Your task to perform on an android device: Show the shopping cart on target.com. Add logitech g pro to the cart on target.com Image 0: 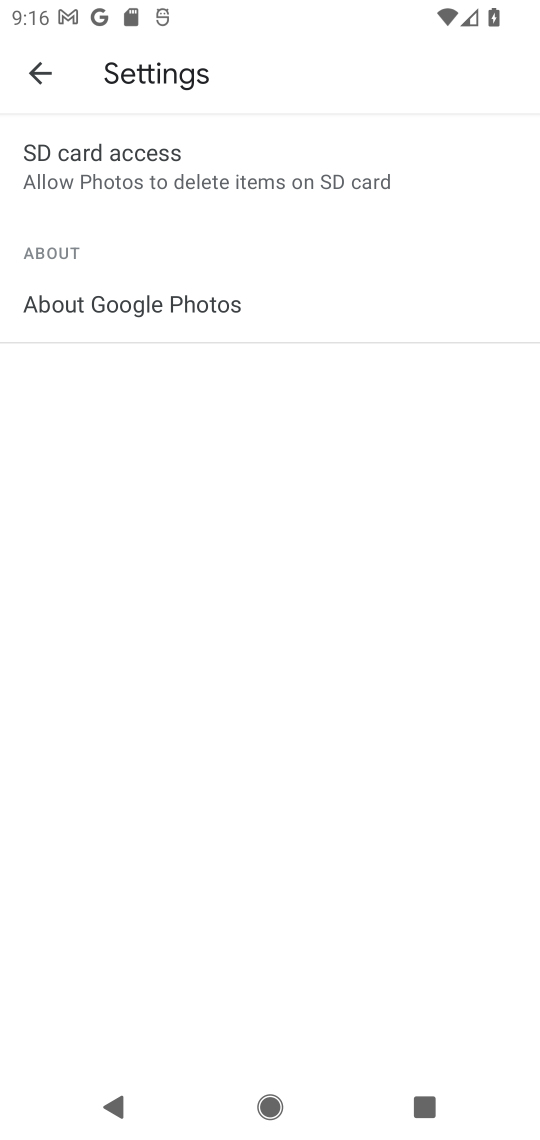
Step 0: press home button
Your task to perform on an android device: Show the shopping cart on target.com. Add logitech g pro to the cart on target.com Image 1: 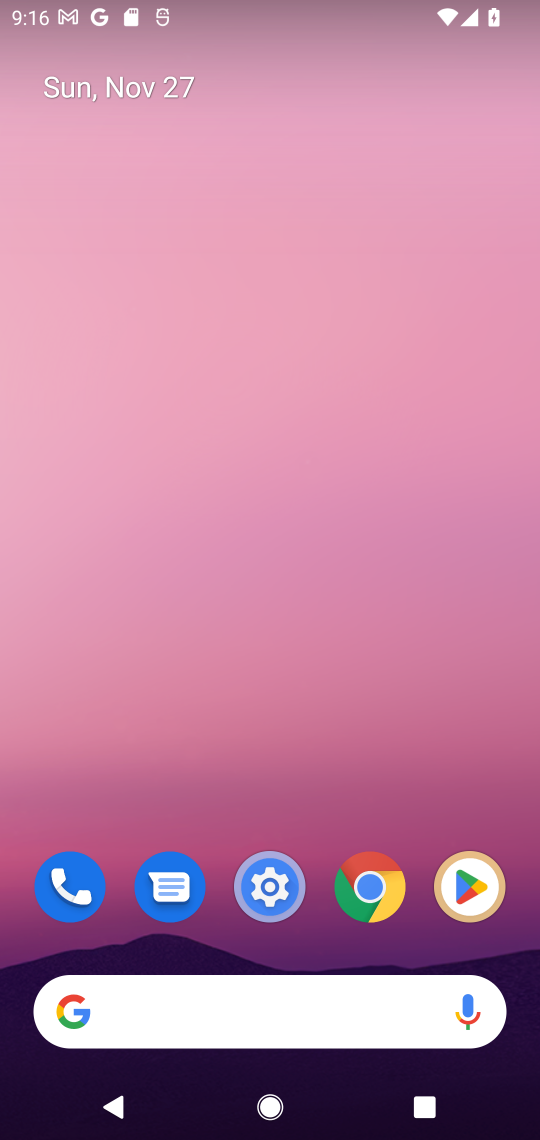
Step 1: click (343, 993)
Your task to perform on an android device: Show the shopping cart on target.com. Add logitech g pro to the cart on target.com Image 2: 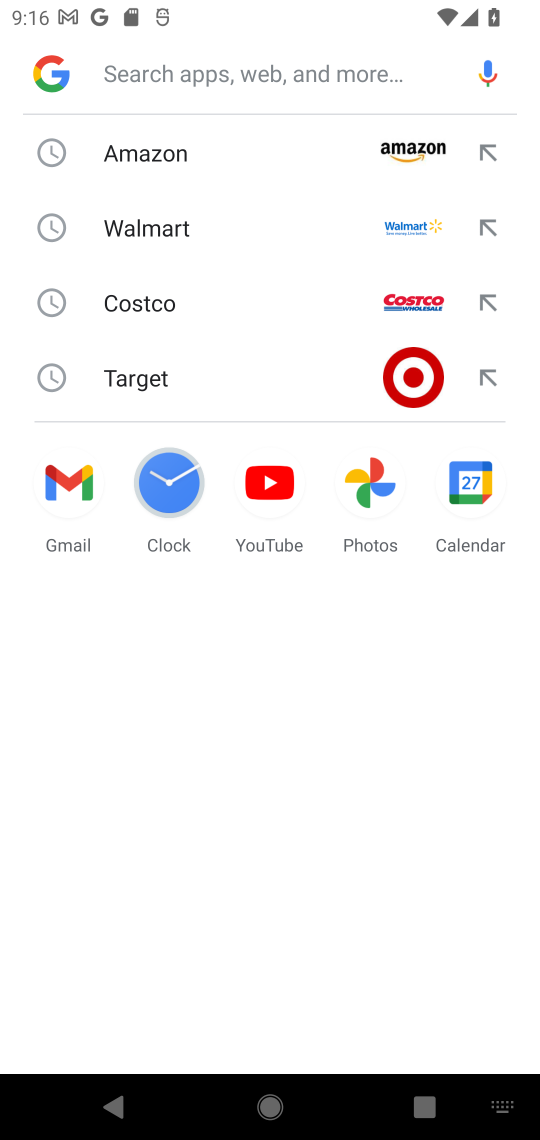
Step 2: click (213, 403)
Your task to perform on an android device: Show the shopping cart on target.com. Add logitech g pro to the cart on target.com Image 3: 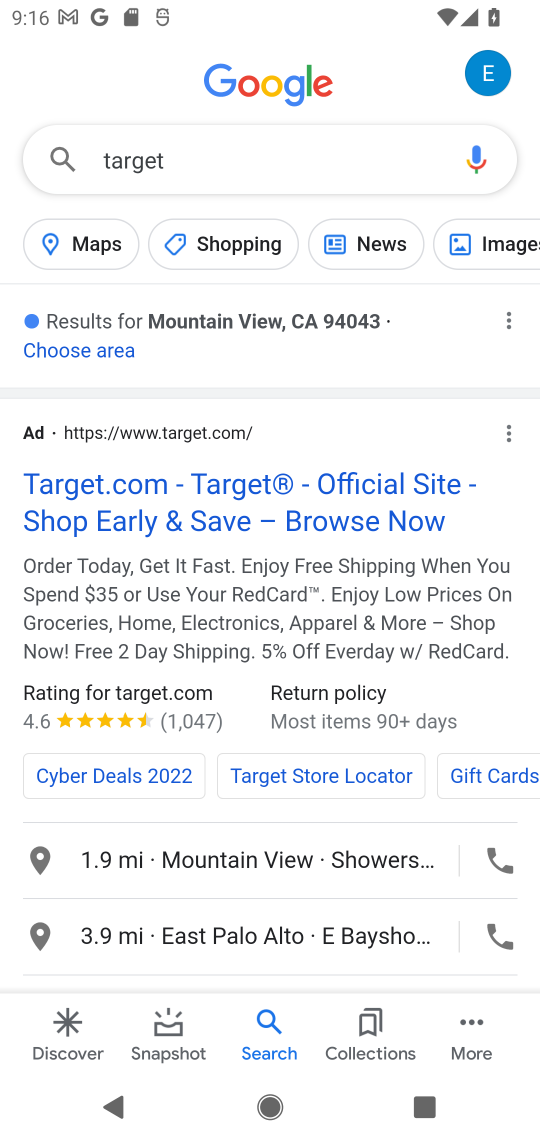
Step 3: click (243, 490)
Your task to perform on an android device: Show the shopping cart on target.com. Add logitech g pro to the cart on target.com Image 4: 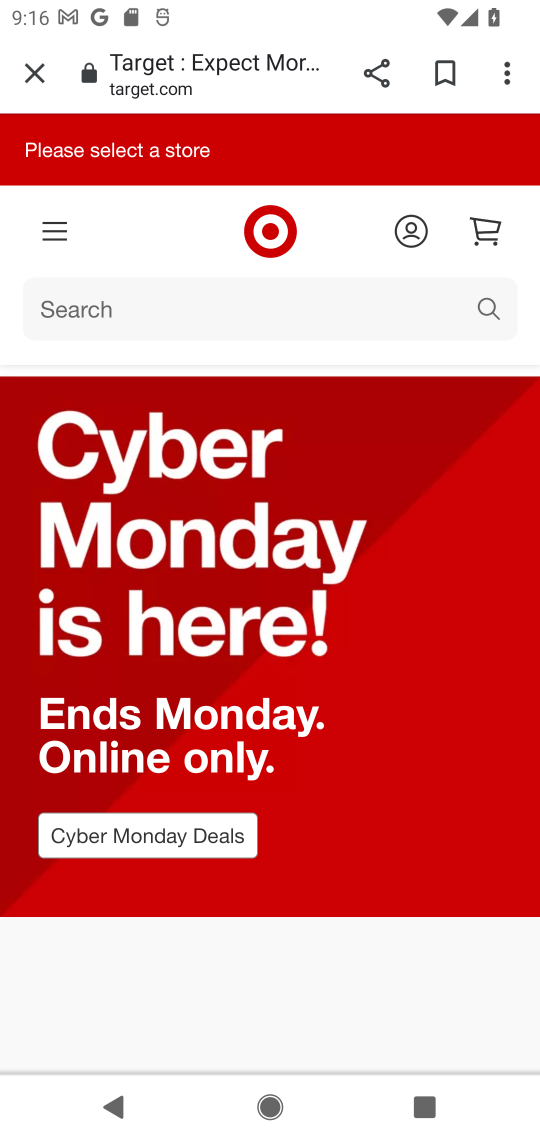
Step 4: click (316, 304)
Your task to perform on an android device: Show the shopping cart on target.com. Add logitech g pro to the cart on target.com Image 5: 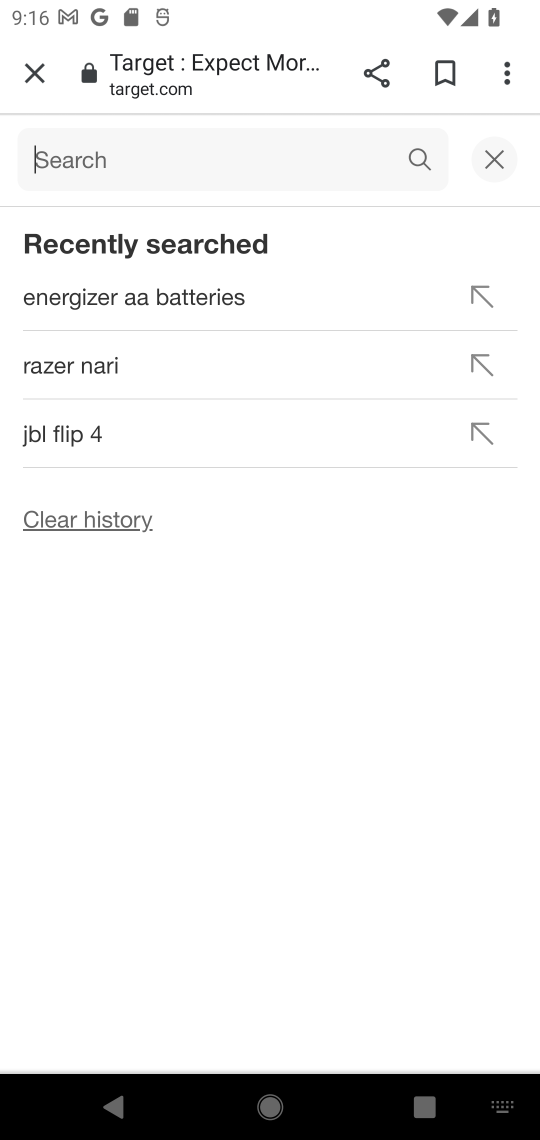
Step 5: type "logitech g pro"
Your task to perform on an android device: Show the shopping cart on target.com. Add logitech g pro to the cart on target.com Image 6: 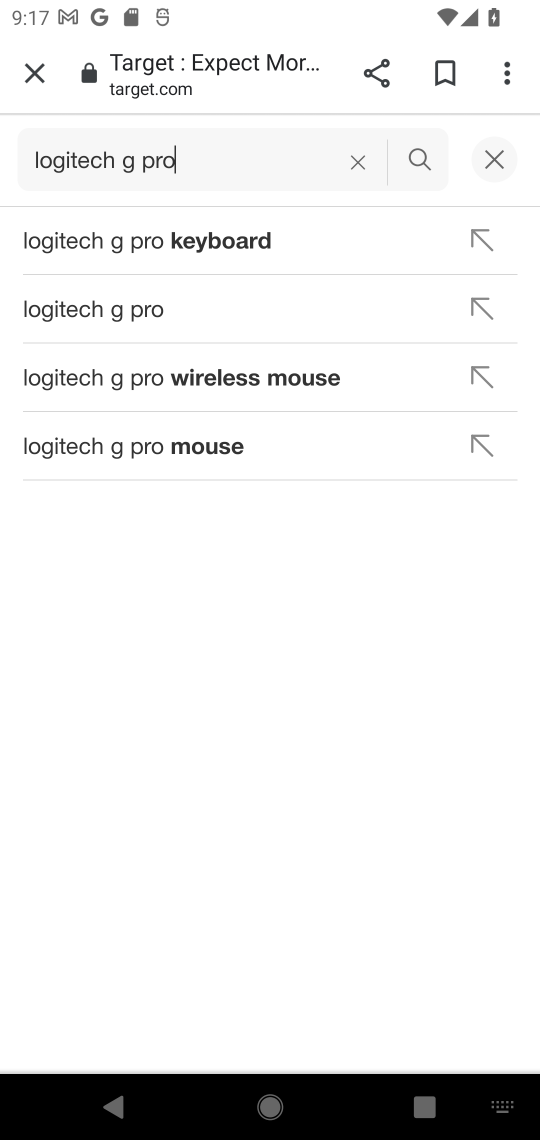
Step 6: click (274, 323)
Your task to perform on an android device: Show the shopping cart on target.com. Add logitech g pro to the cart on target.com Image 7: 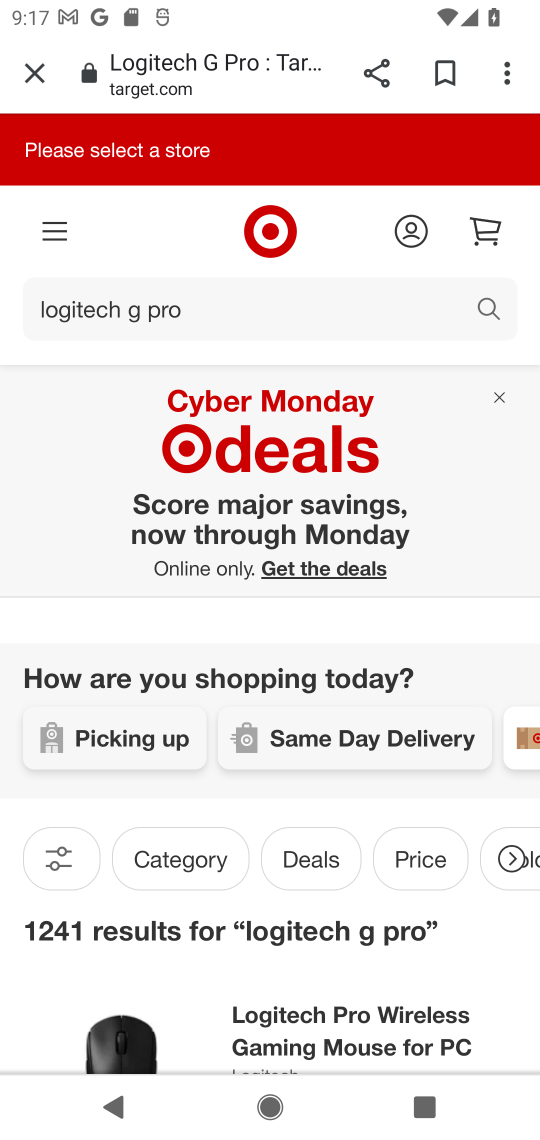
Step 7: drag from (343, 807) to (272, 443)
Your task to perform on an android device: Show the shopping cart on target.com. Add logitech g pro to the cart on target.com Image 8: 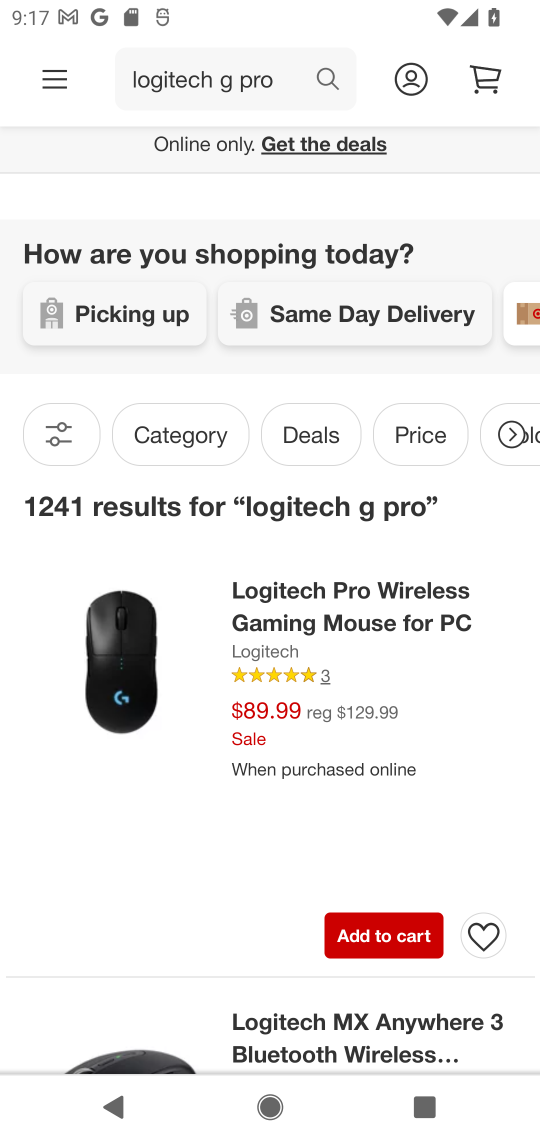
Step 8: click (358, 909)
Your task to perform on an android device: Show the shopping cart on target.com. Add logitech g pro to the cart on target.com Image 9: 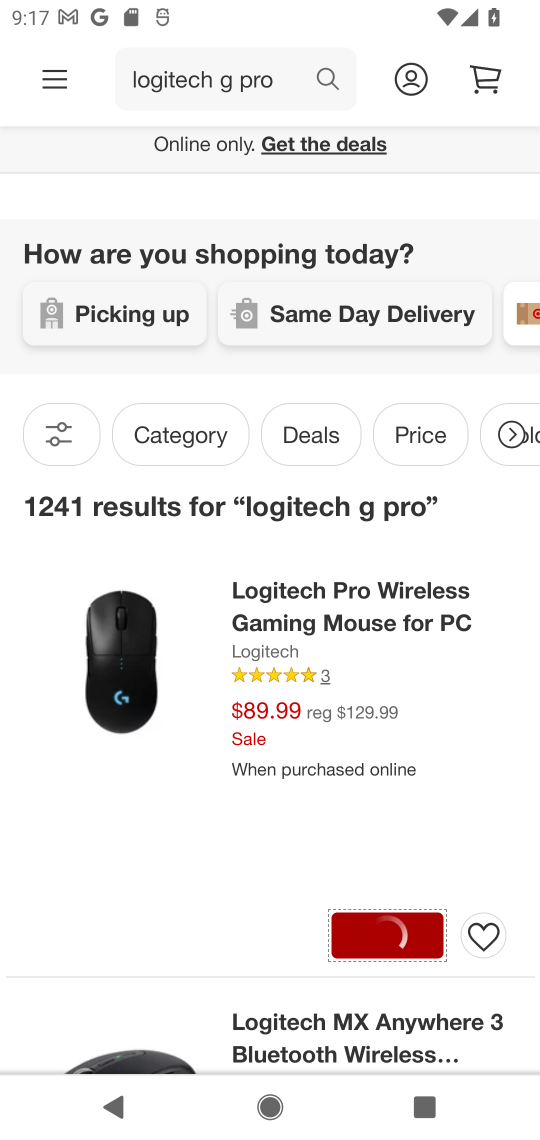
Step 9: task complete